Your task to perform on an android device: Open display settings Image 0: 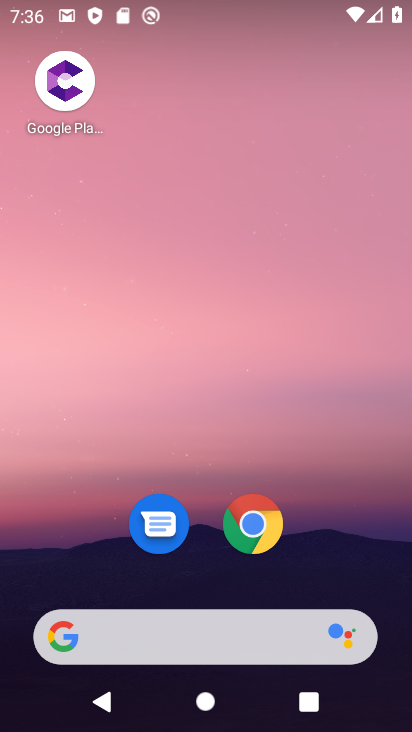
Step 0: drag from (336, 557) to (287, 46)
Your task to perform on an android device: Open display settings Image 1: 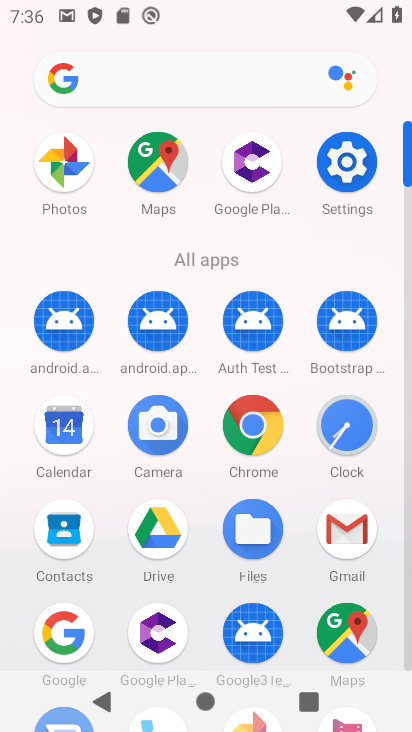
Step 1: click (348, 166)
Your task to perform on an android device: Open display settings Image 2: 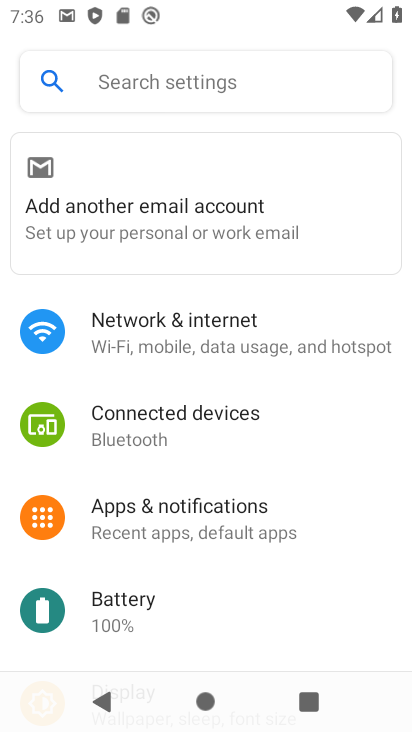
Step 2: drag from (217, 596) to (252, 229)
Your task to perform on an android device: Open display settings Image 3: 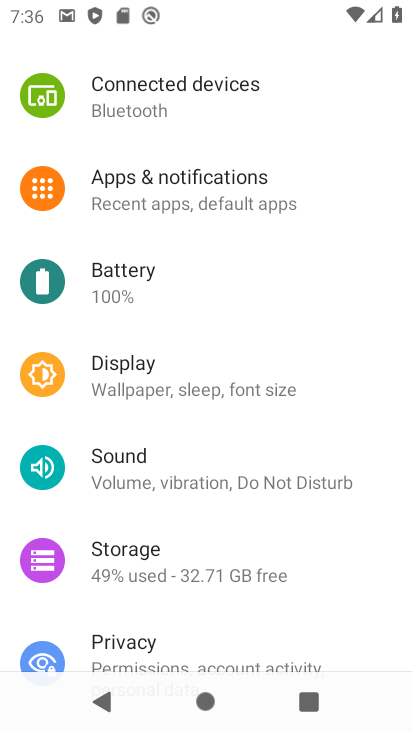
Step 3: click (191, 373)
Your task to perform on an android device: Open display settings Image 4: 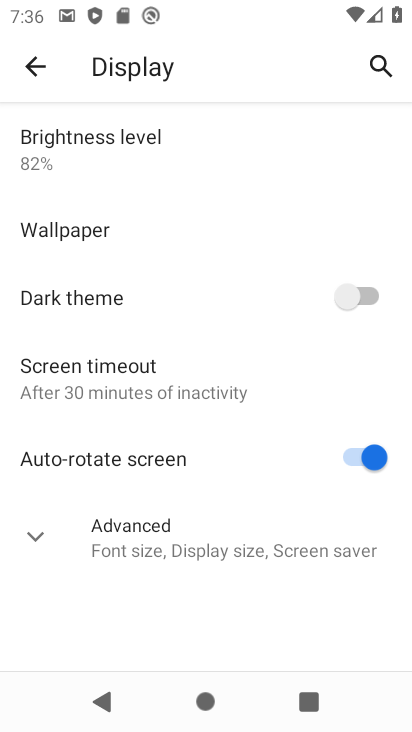
Step 4: task complete